Your task to perform on an android device: manage bookmarks in the chrome app Image 0: 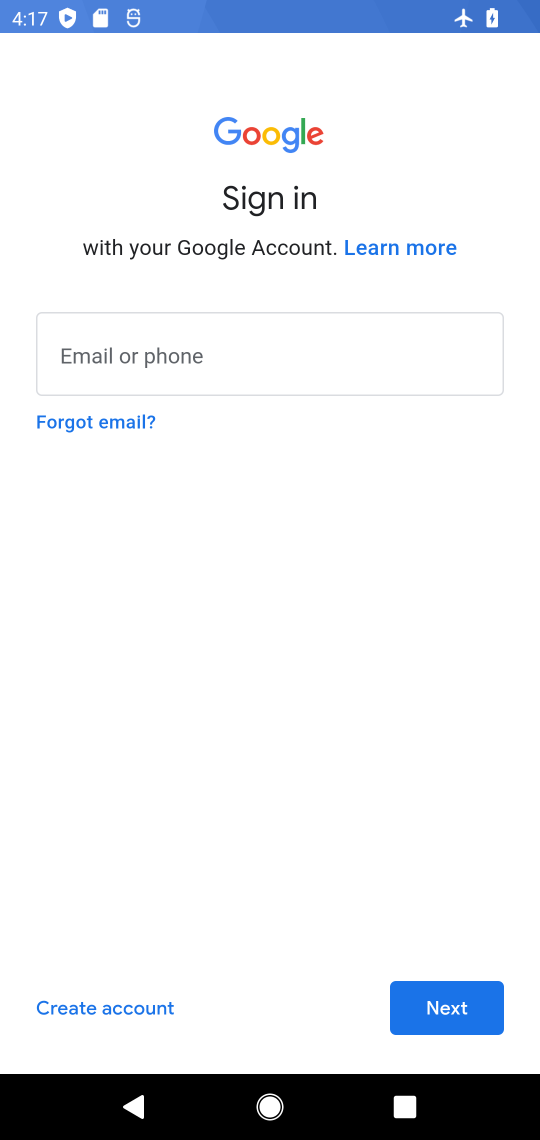
Step 0: press home button
Your task to perform on an android device: manage bookmarks in the chrome app Image 1: 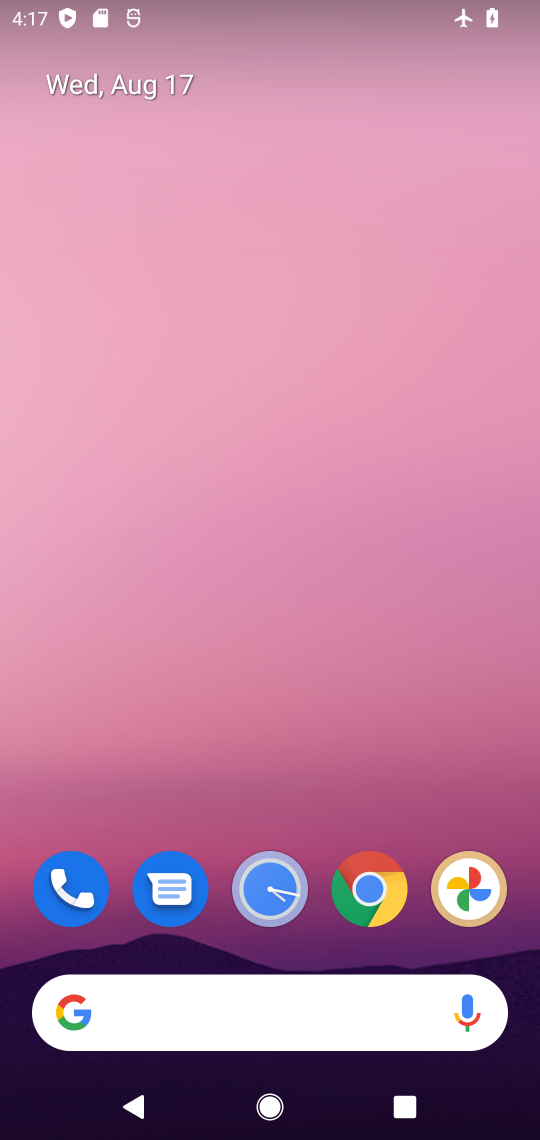
Step 1: click (369, 885)
Your task to perform on an android device: manage bookmarks in the chrome app Image 2: 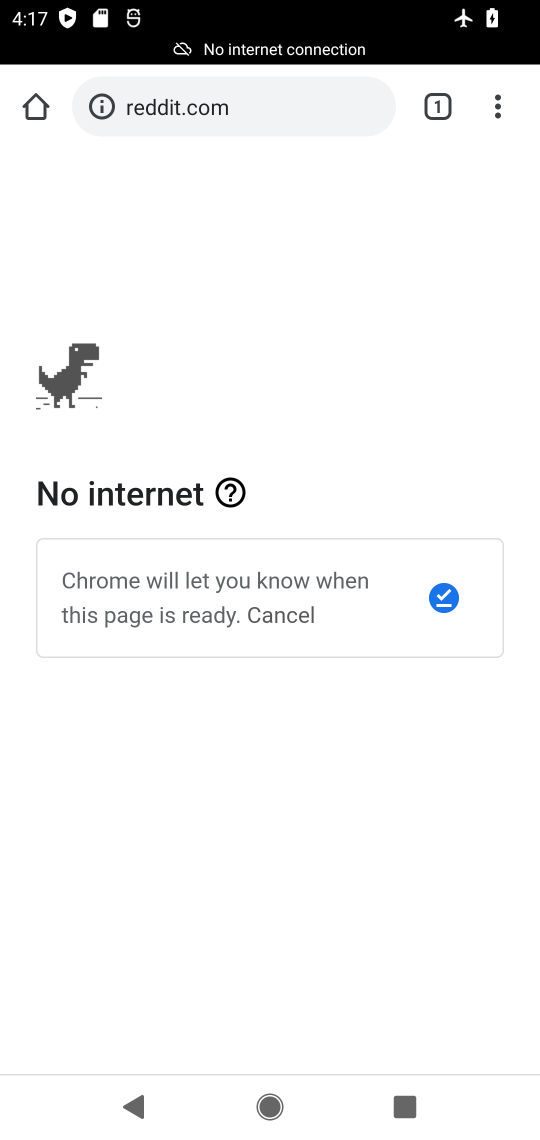
Step 2: click (498, 102)
Your task to perform on an android device: manage bookmarks in the chrome app Image 3: 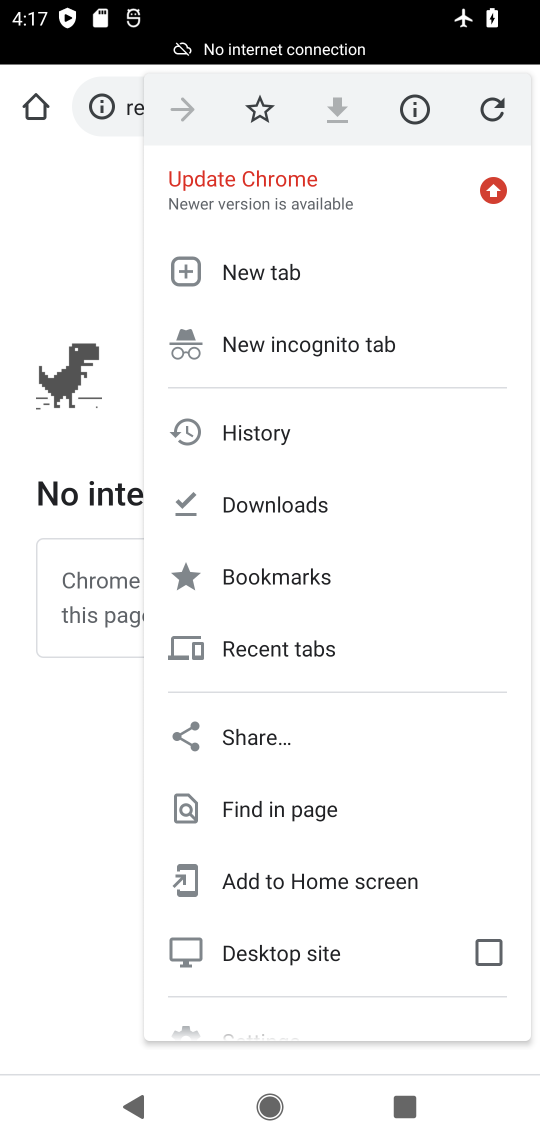
Step 3: click (266, 570)
Your task to perform on an android device: manage bookmarks in the chrome app Image 4: 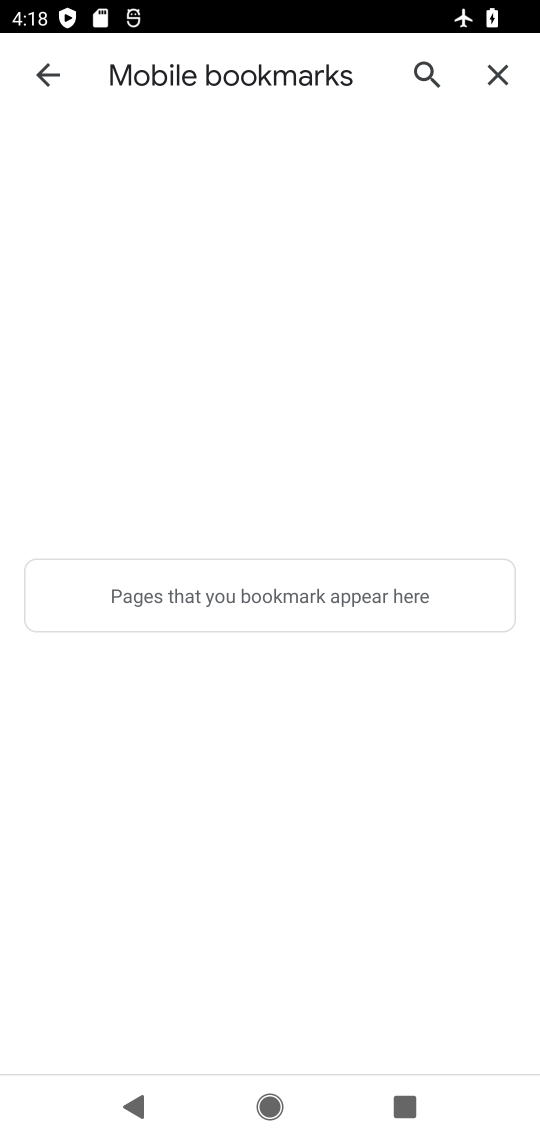
Step 4: task complete